Your task to perform on an android device: Search for Italian restaurants on Maps Image 0: 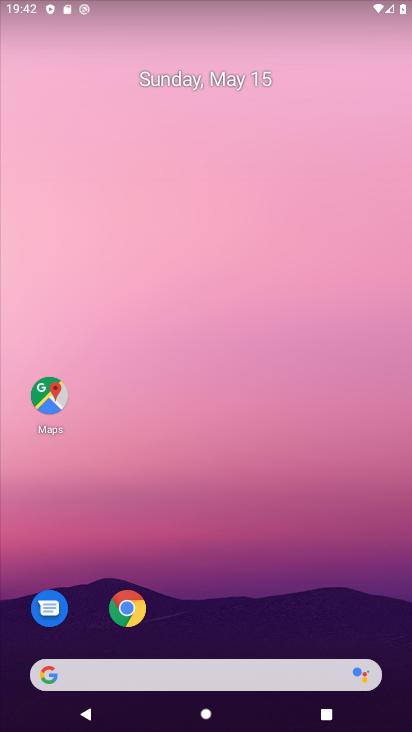
Step 0: click (47, 396)
Your task to perform on an android device: Search for Italian restaurants on Maps Image 1: 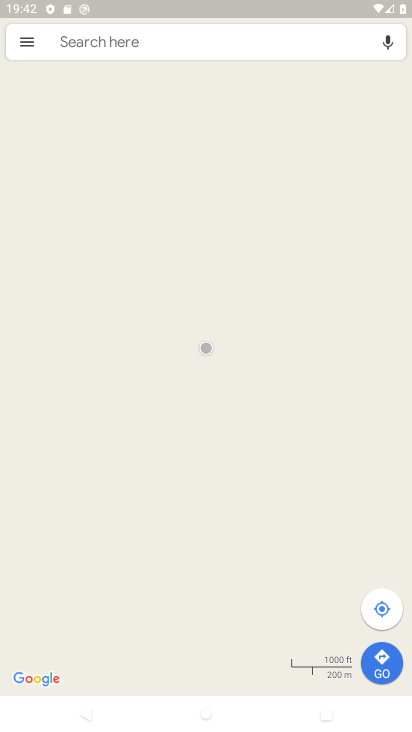
Step 1: click (217, 46)
Your task to perform on an android device: Search for Italian restaurants on Maps Image 2: 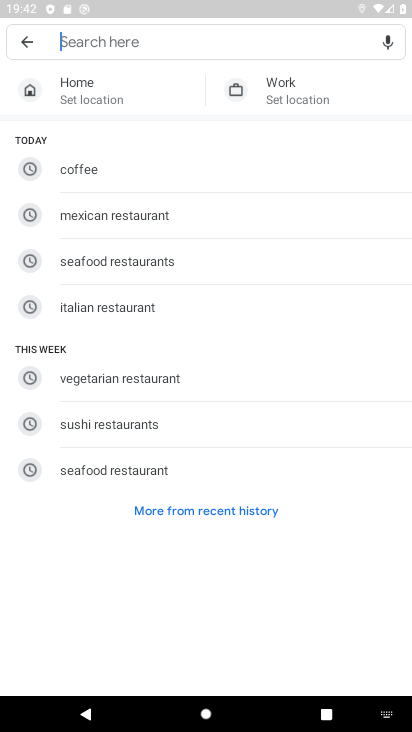
Step 2: click (106, 307)
Your task to perform on an android device: Search for Italian restaurants on Maps Image 3: 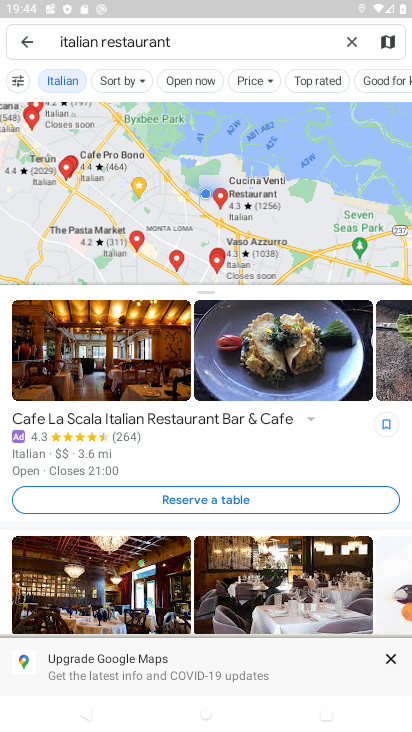
Step 3: task complete